Your task to perform on an android device: What's the weather today? Image 0: 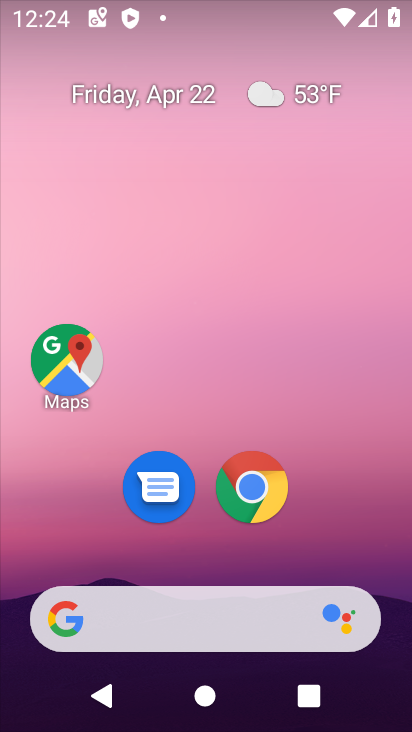
Step 0: click (211, 633)
Your task to perform on an android device: What's the weather today? Image 1: 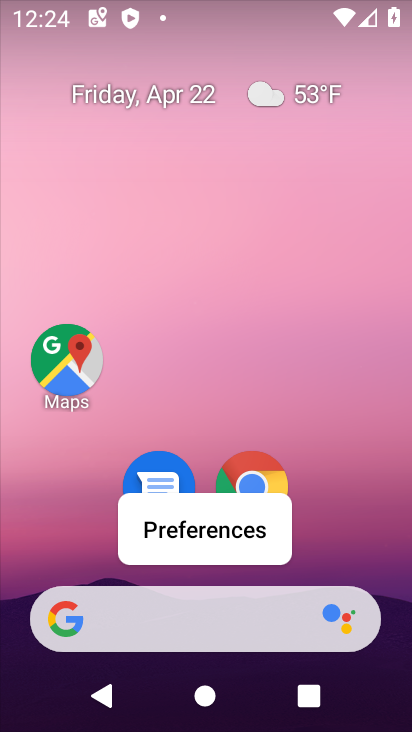
Step 1: click (211, 637)
Your task to perform on an android device: What's the weather today? Image 2: 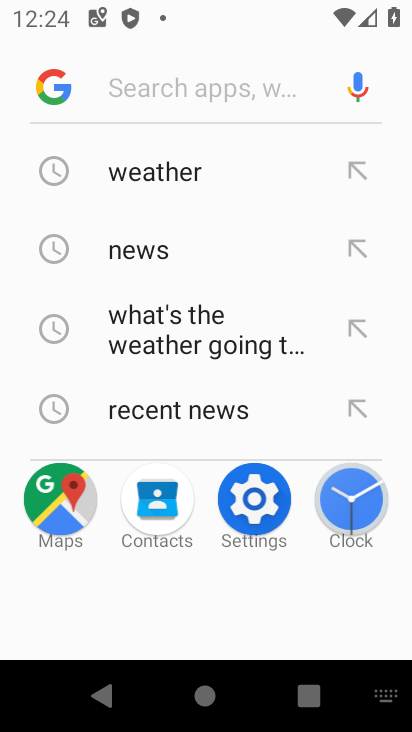
Step 2: click (171, 170)
Your task to perform on an android device: What's the weather today? Image 3: 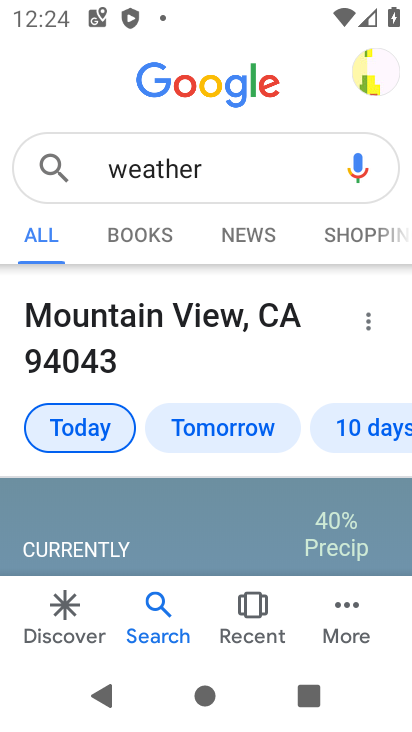
Step 3: task complete